Your task to perform on an android device: Turn off the flashlight Image 0: 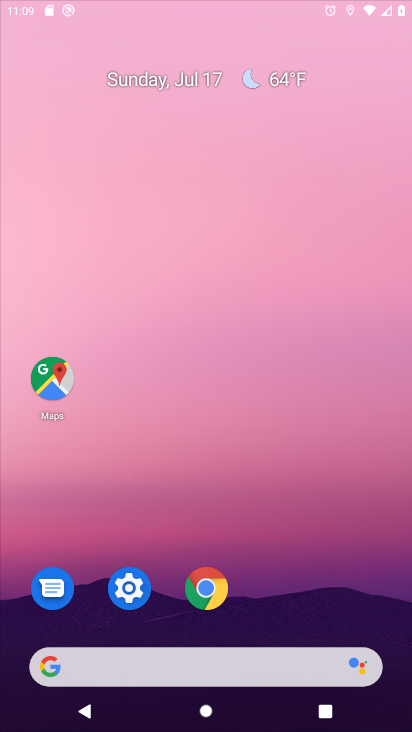
Step 0: click (187, 102)
Your task to perform on an android device: Turn off the flashlight Image 1: 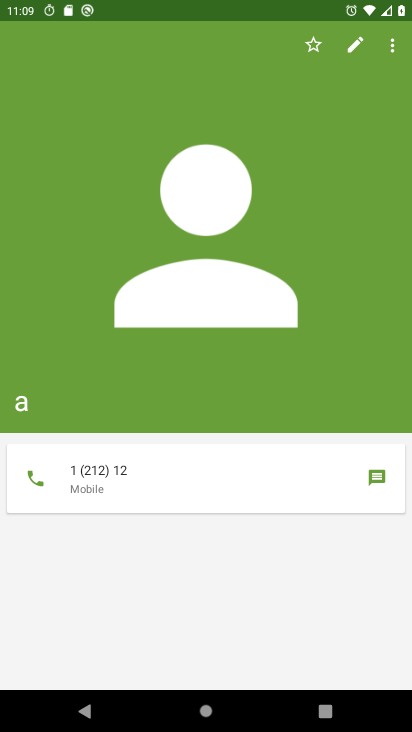
Step 1: press back button
Your task to perform on an android device: Turn off the flashlight Image 2: 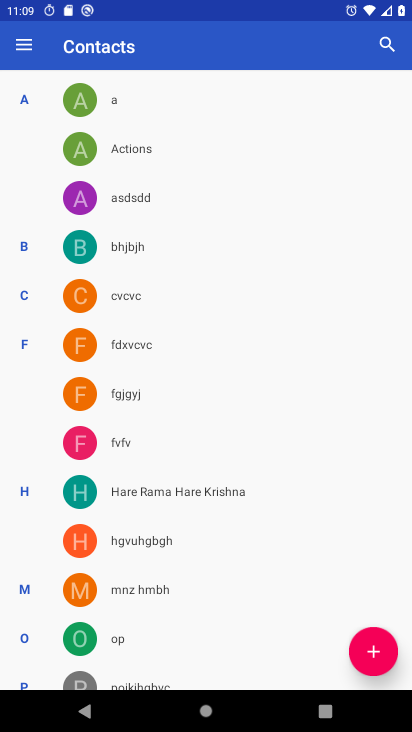
Step 2: press home button
Your task to perform on an android device: Turn off the flashlight Image 3: 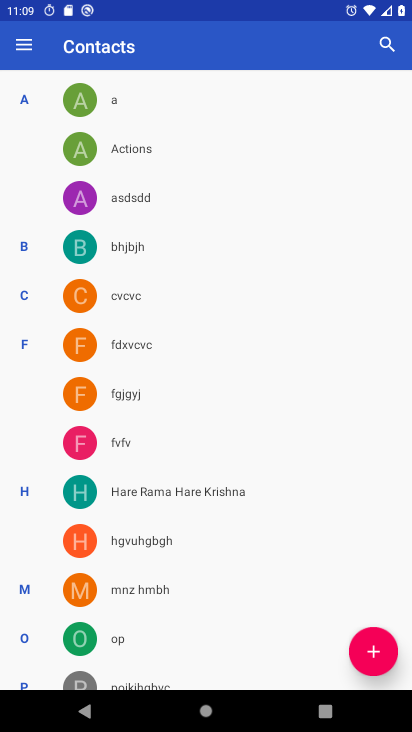
Step 3: press home button
Your task to perform on an android device: Turn off the flashlight Image 4: 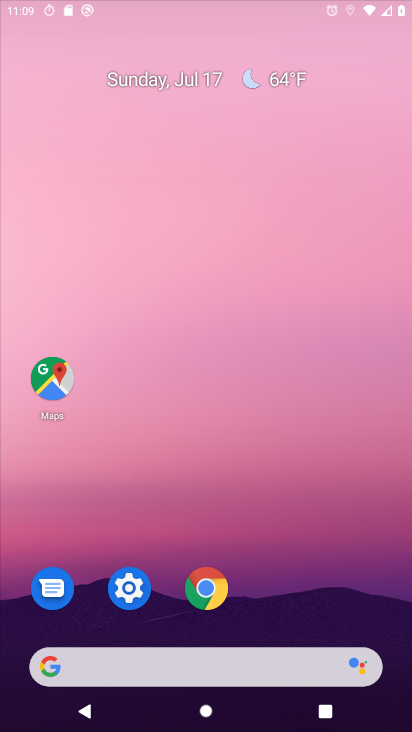
Step 4: press home button
Your task to perform on an android device: Turn off the flashlight Image 5: 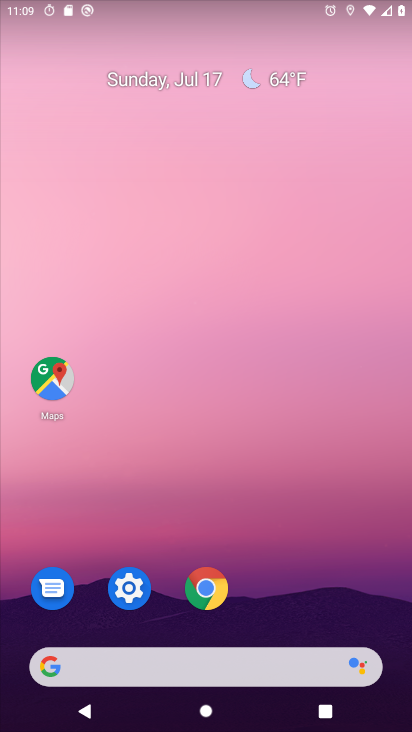
Step 5: drag from (236, 660) to (166, 111)
Your task to perform on an android device: Turn off the flashlight Image 6: 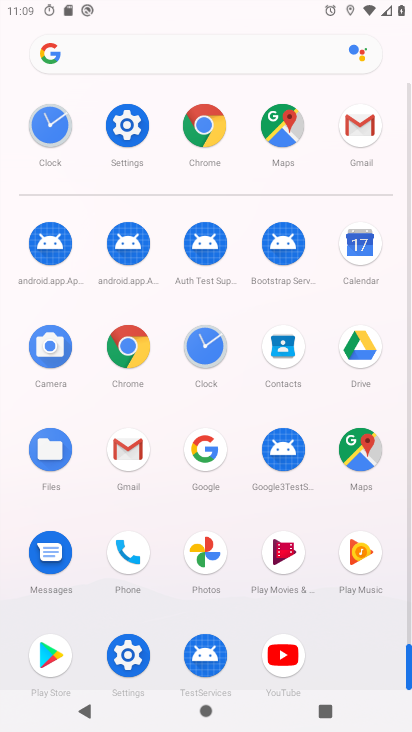
Step 6: click (231, 574)
Your task to perform on an android device: Turn off the flashlight Image 7: 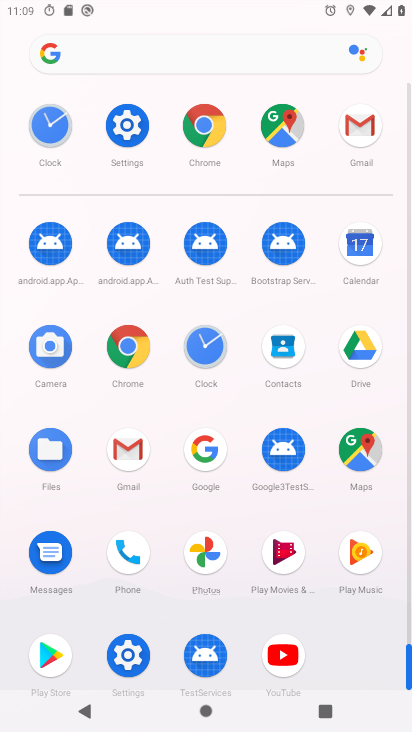
Step 7: task complete